Your task to perform on an android device: Search for flights from NYC to Mexico city Image 0: 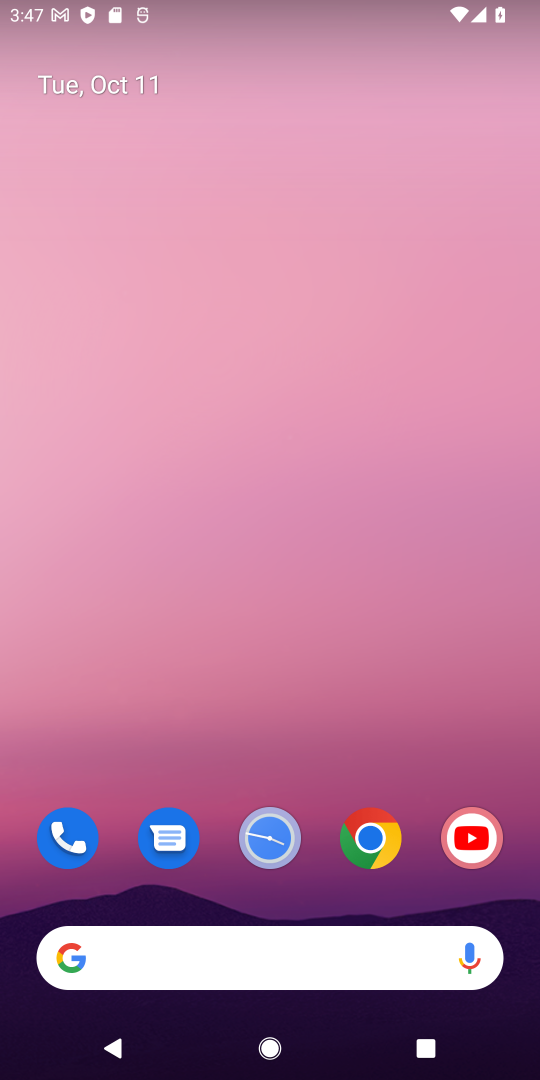
Step 0: click (171, 951)
Your task to perform on an android device: Search for flights from NYC to Mexico city Image 1: 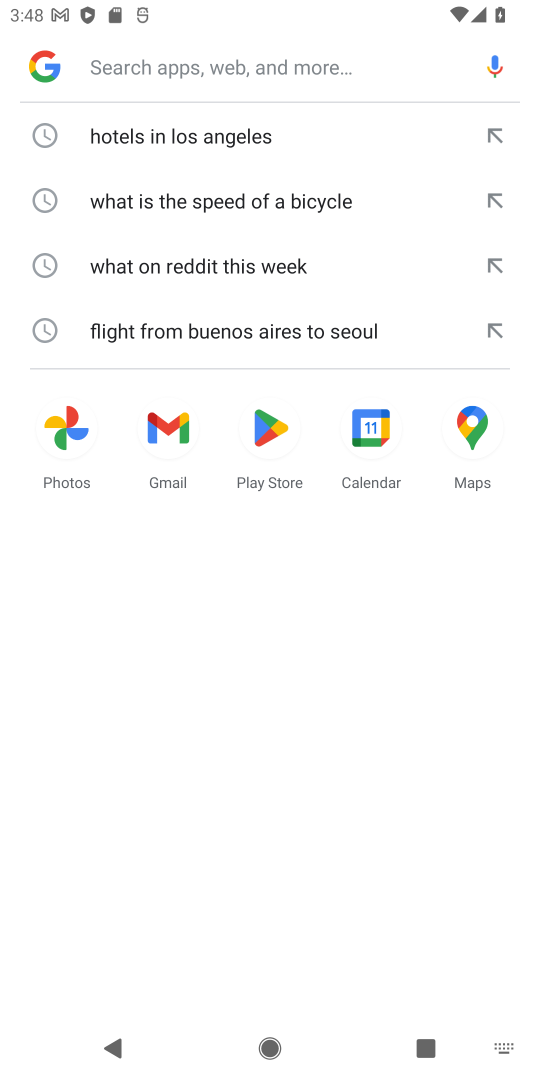
Step 1: click (150, 66)
Your task to perform on an android device: Search for flights from NYC to Mexico city Image 2: 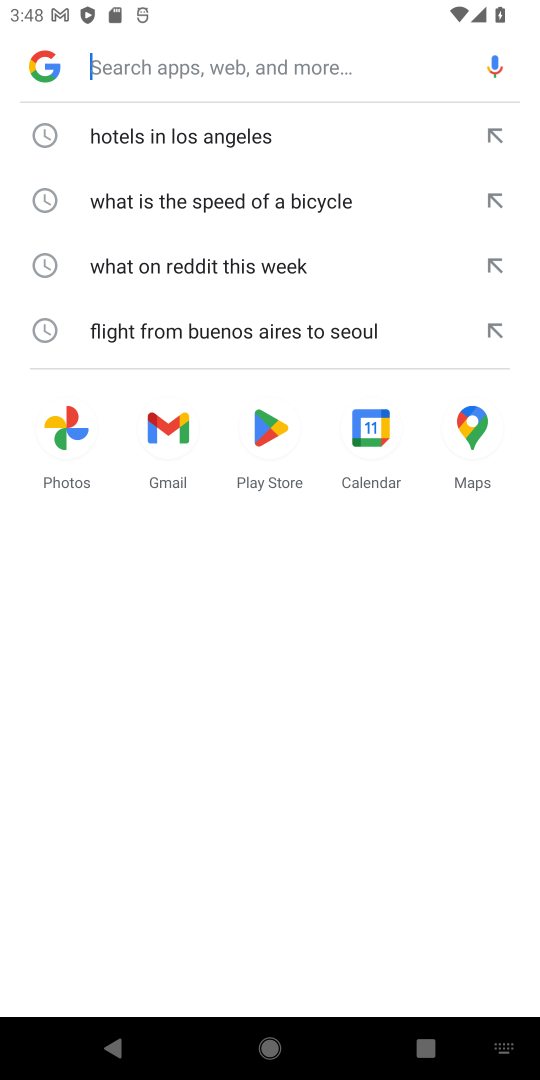
Step 2: type "flights from NYC to Mexico city"
Your task to perform on an android device: Search for flights from NYC to Mexico city Image 3: 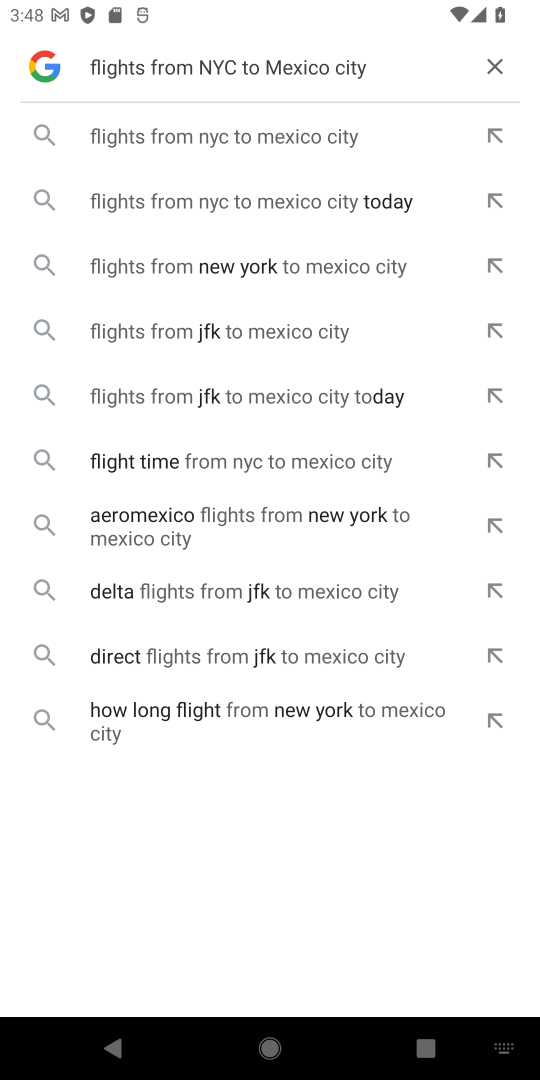
Step 3: click (242, 152)
Your task to perform on an android device: Search for flights from NYC to Mexico city Image 4: 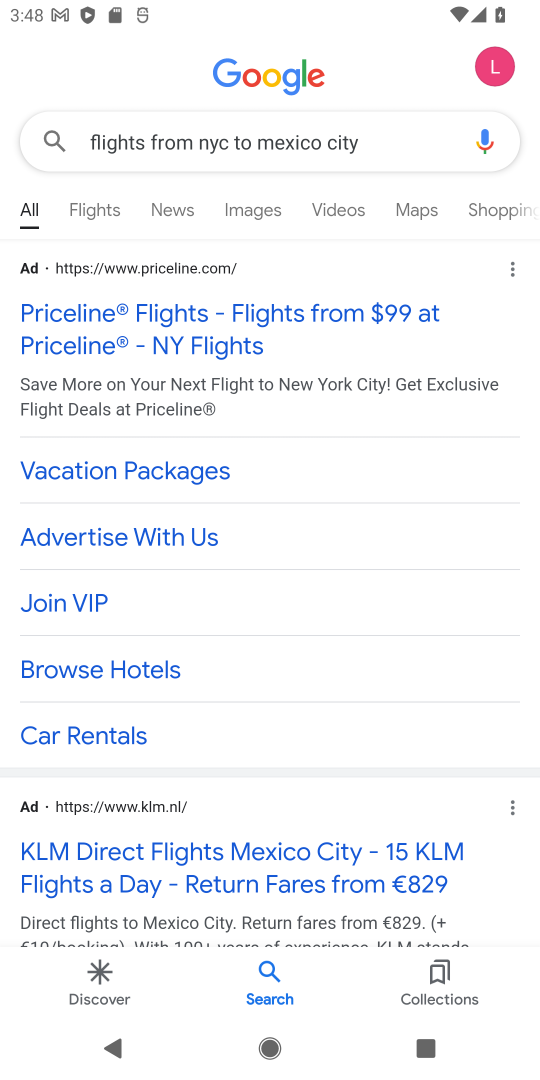
Step 4: task complete